Your task to perform on an android device: show emergency info Image 0: 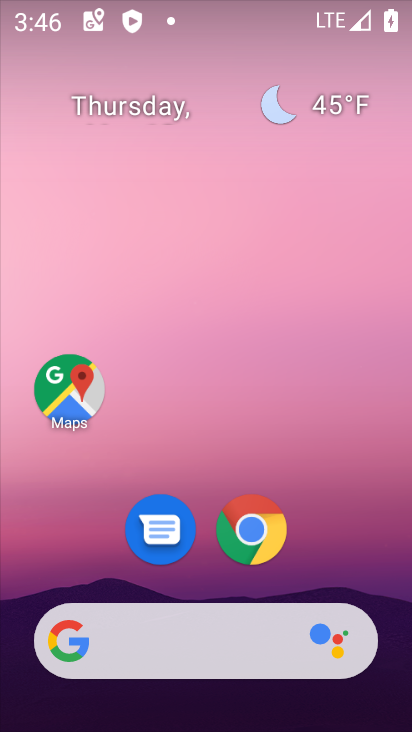
Step 0: drag from (364, 497) to (347, 31)
Your task to perform on an android device: show emergency info Image 1: 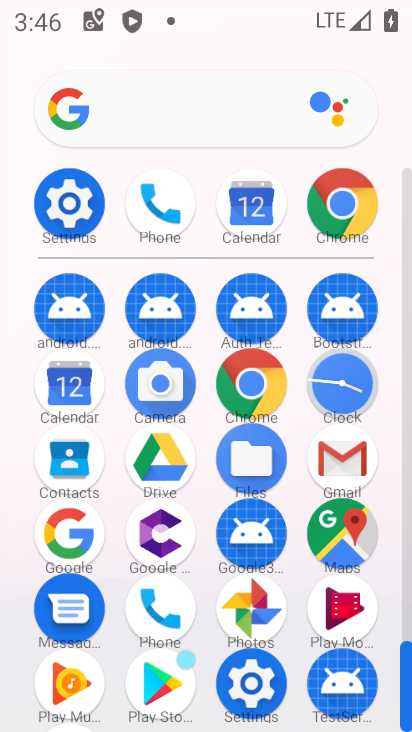
Step 1: click (93, 213)
Your task to perform on an android device: show emergency info Image 2: 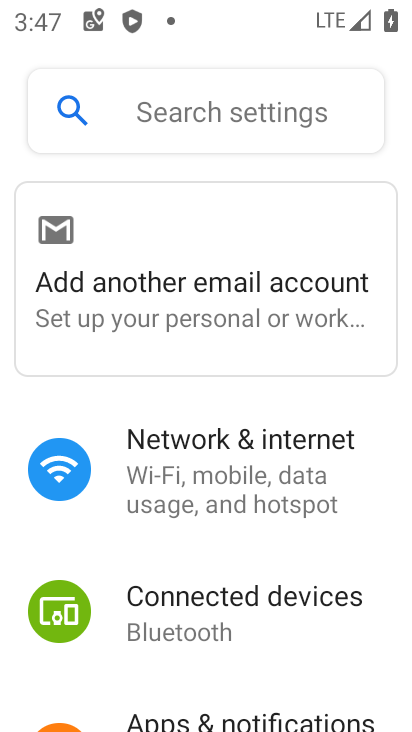
Step 2: drag from (268, 663) to (199, 147)
Your task to perform on an android device: show emergency info Image 3: 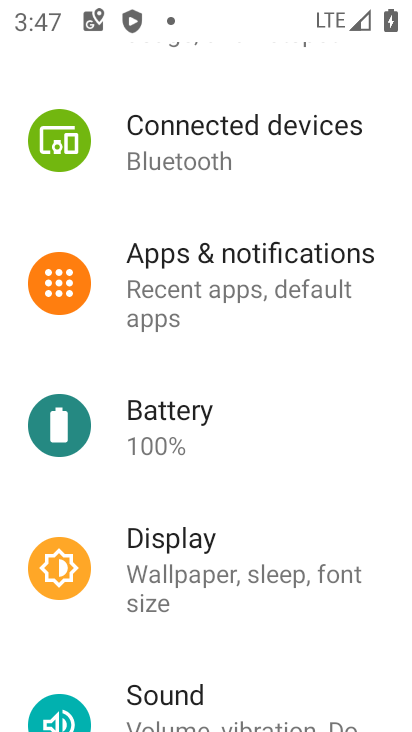
Step 3: drag from (222, 555) to (240, 74)
Your task to perform on an android device: show emergency info Image 4: 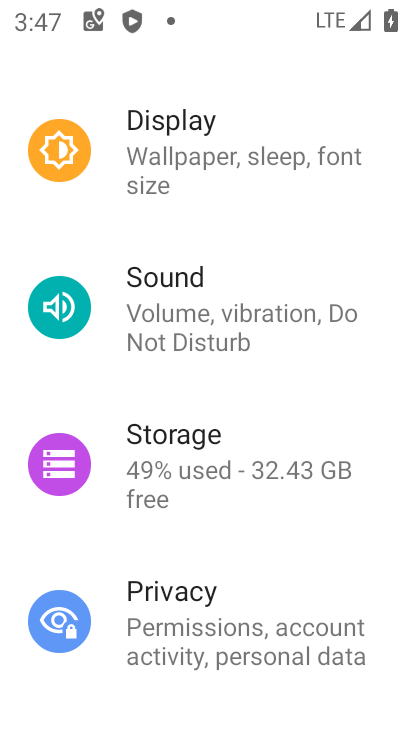
Step 4: drag from (213, 592) to (282, 119)
Your task to perform on an android device: show emergency info Image 5: 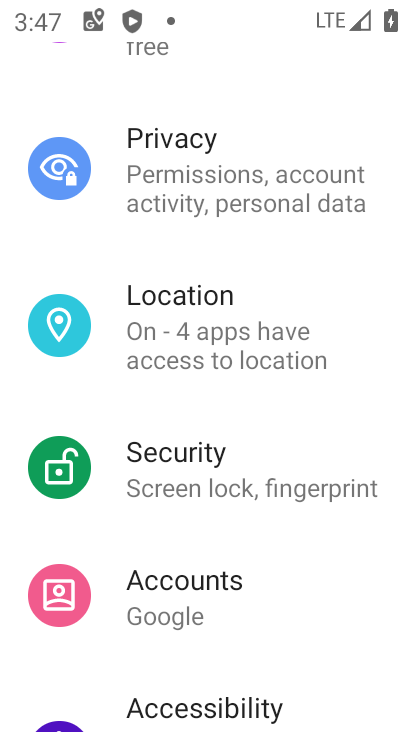
Step 5: drag from (267, 619) to (275, 24)
Your task to perform on an android device: show emergency info Image 6: 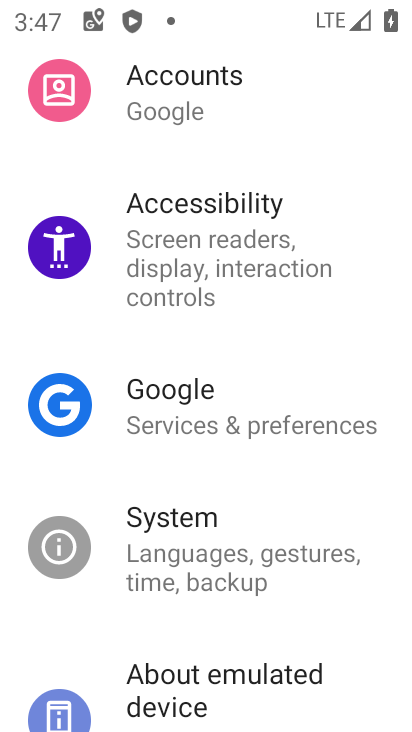
Step 6: drag from (285, 632) to (321, 204)
Your task to perform on an android device: show emergency info Image 7: 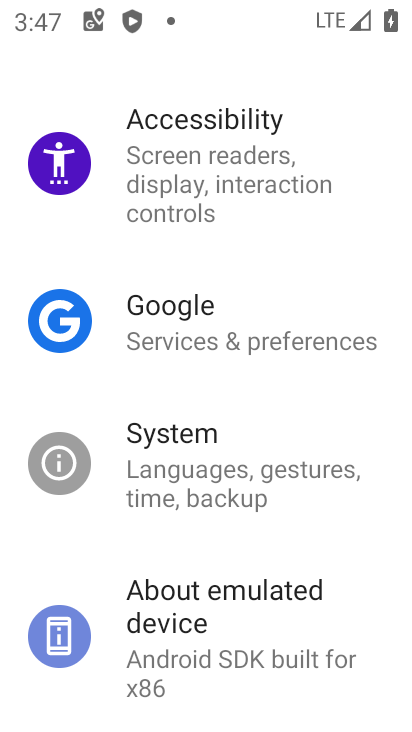
Step 7: click (203, 621)
Your task to perform on an android device: show emergency info Image 8: 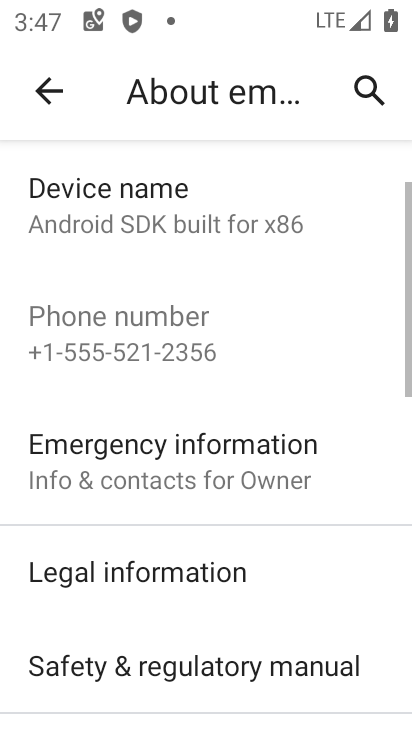
Step 8: click (181, 473)
Your task to perform on an android device: show emergency info Image 9: 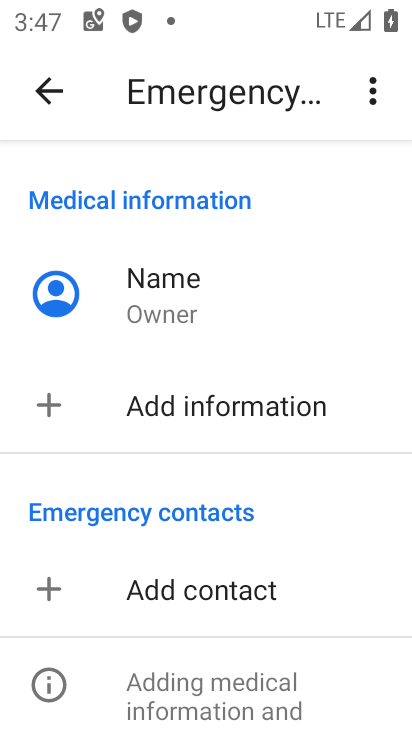
Step 9: task complete